Your task to perform on an android device: choose inbox layout in the gmail app Image 0: 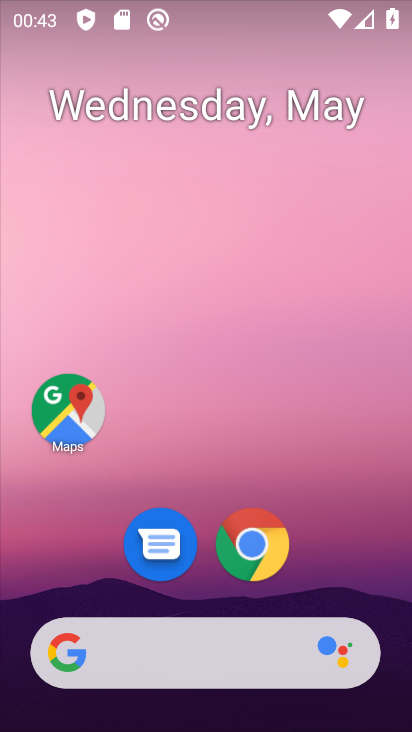
Step 0: drag from (354, 611) to (330, 129)
Your task to perform on an android device: choose inbox layout in the gmail app Image 1: 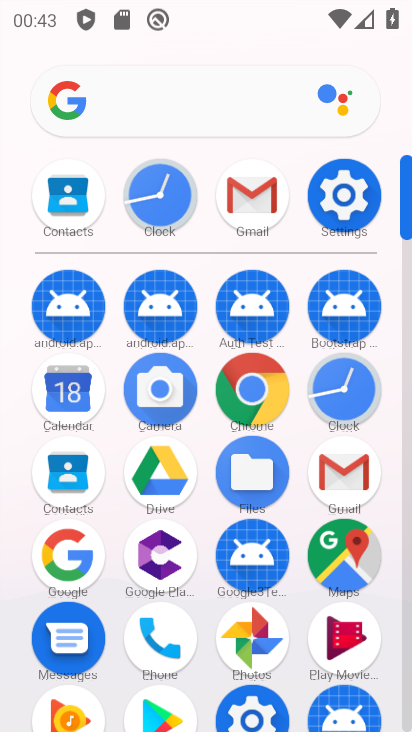
Step 1: click (262, 192)
Your task to perform on an android device: choose inbox layout in the gmail app Image 2: 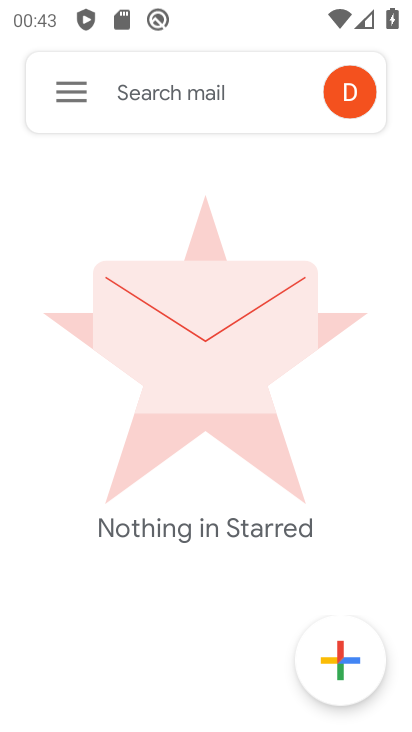
Step 2: click (68, 77)
Your task to perform on an android device: choose inbox layout in the gmail app Image 3: 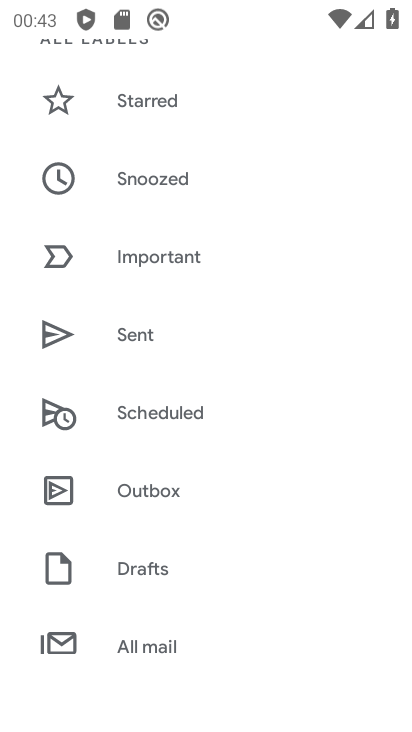
Step 3: drag from (133, 560) to (170, 92)
Your task to perform on an android device: choose inbox layout in the gmail app Image 4: 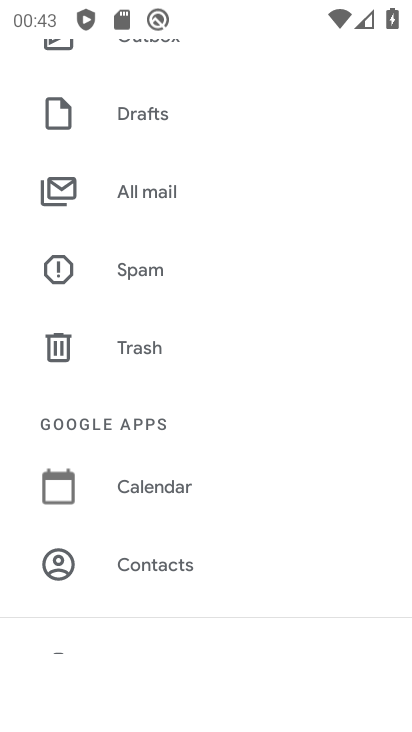
Step 4: drag from (121, 567) to (197, 222)
Your task to perform on an android device: choose inbox layout in the gmail app Image 5: 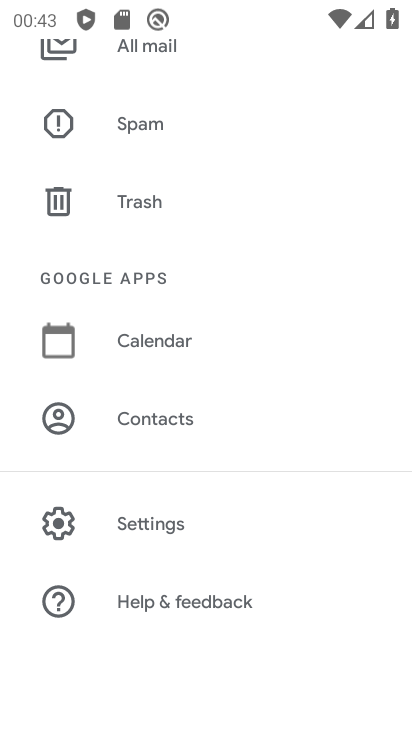
Step 5: click (130, 528)
Your task to perform on an android device: choose inbox layout in the gmail app Image 6: 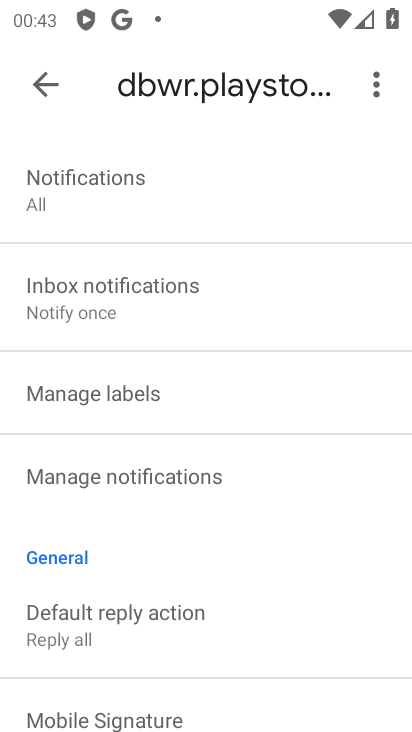
Step 6: drag from (167, 236) to (189, 709)
Your task to perform on an android device: choose inbox layout in the gmail app Image 7: 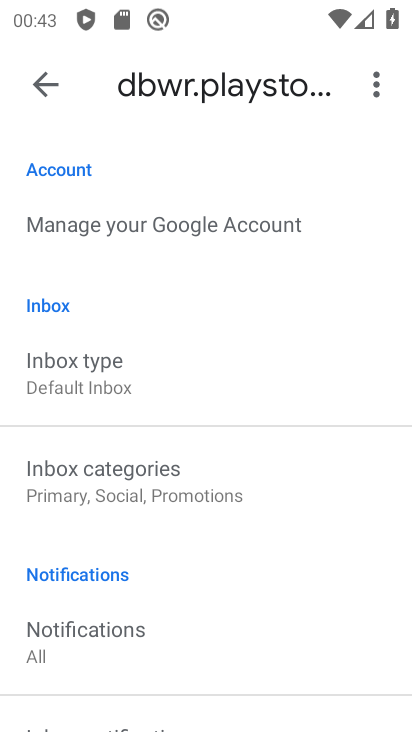
Step 7: click (115, 380)
Your task to perform on an android device: choose inbox layout in the gmail app Image 8: 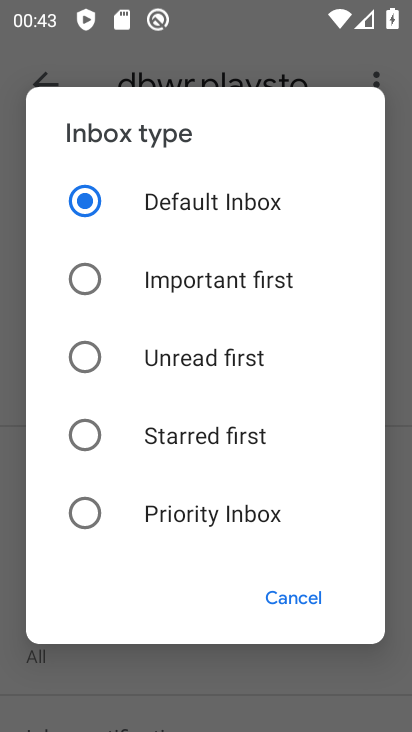
Step 8: task complete